Your task to perform on an android device: check android version Image 0: 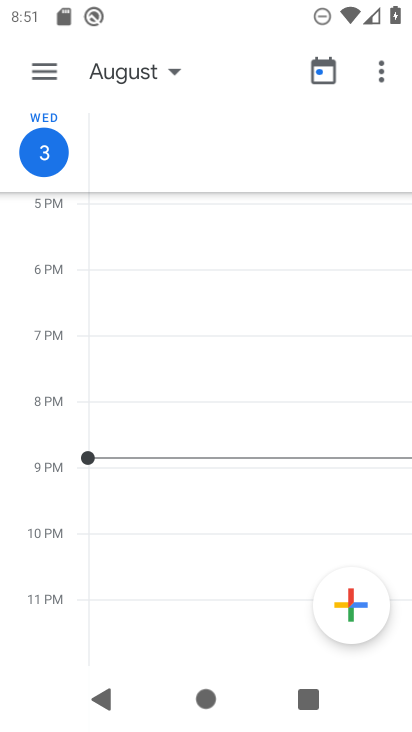
Step 0: press back button
Your task to perform on an android device: check android version Image 1: 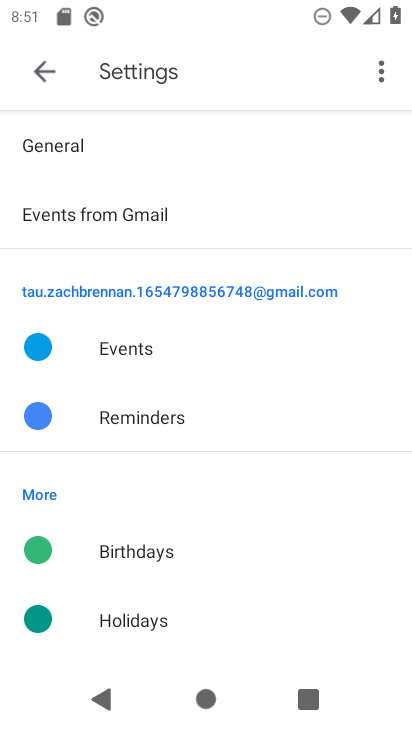
Step 1: press back button
Your task to perform on an android device: check android version Image 2: 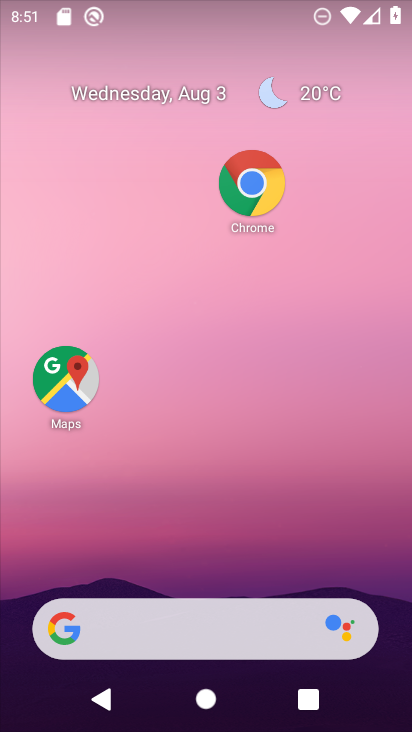
Step 2: drag from (162, 477) to (162, 163)
Your task to perform on an android device: check android version Image 3: 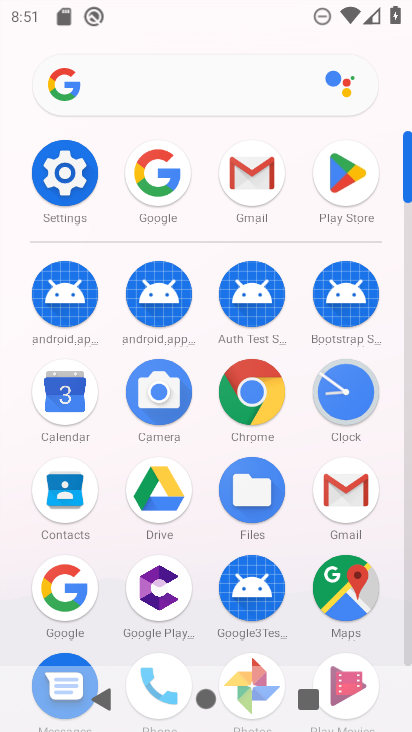
Step 3: click (60, 172)
Your task to perform on an android device: check android version Image 4: 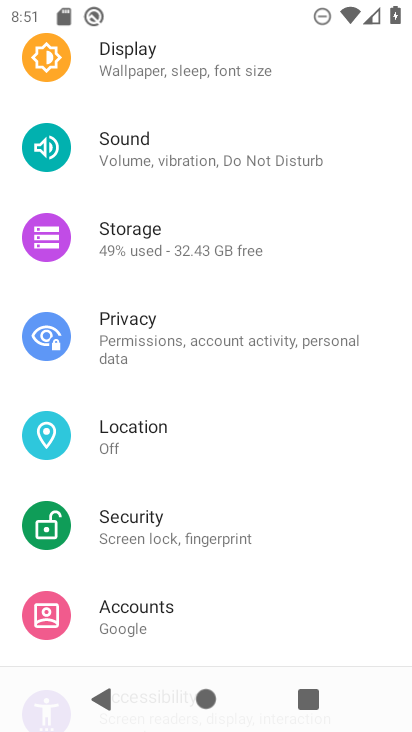
Step 4: drag from (186, 515) to (229, 185)
Your task to perform on an android device: check android version Image 5: 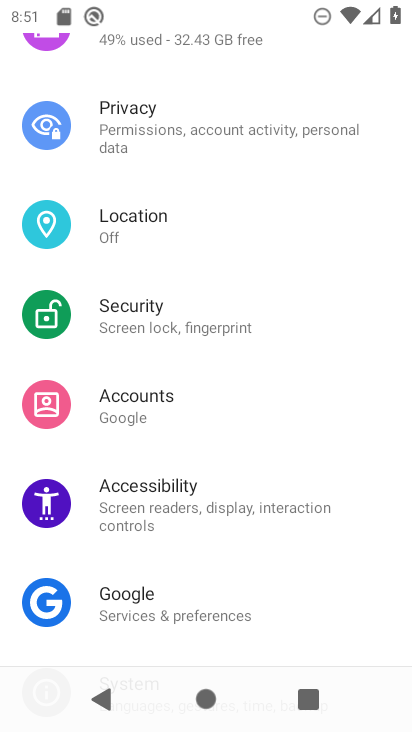
Step 5: drag from (184, 554) to (189, 220)
Your task to perform on an android device: check android version Image 6: 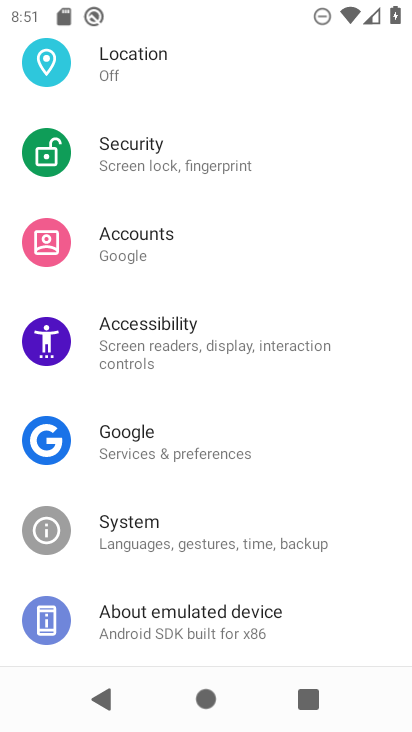
Step 6: click (142, 627)
Your task to perform on an android device: check android version Image 7: 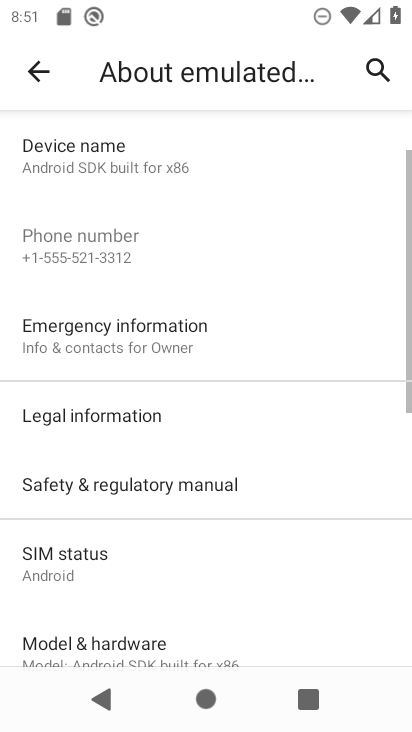
Step 7: drag from (181, 635) to (194, 225)
Your task to perform on an android device: check android version Image 8: 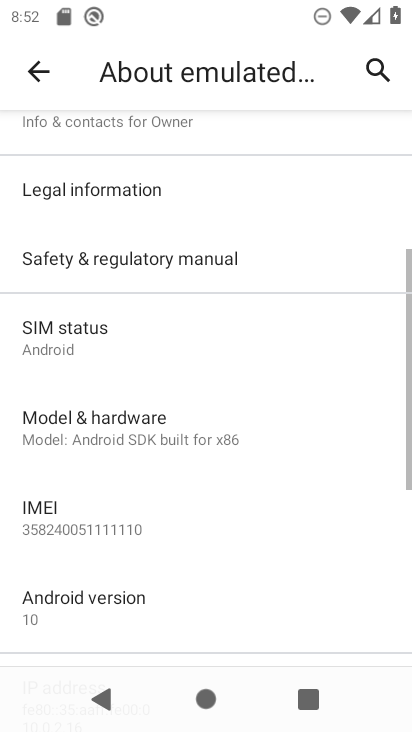
Step 8: click (149, 627)
Your task to perform on an android device: check android version Image 9: 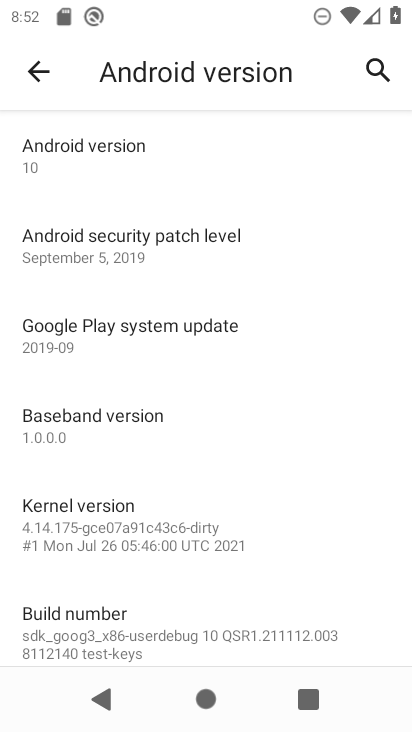
Step 9: task complete